Your task to perform on an android device: uninstall "HBO Max: Stream TV & Movies" Image 0: 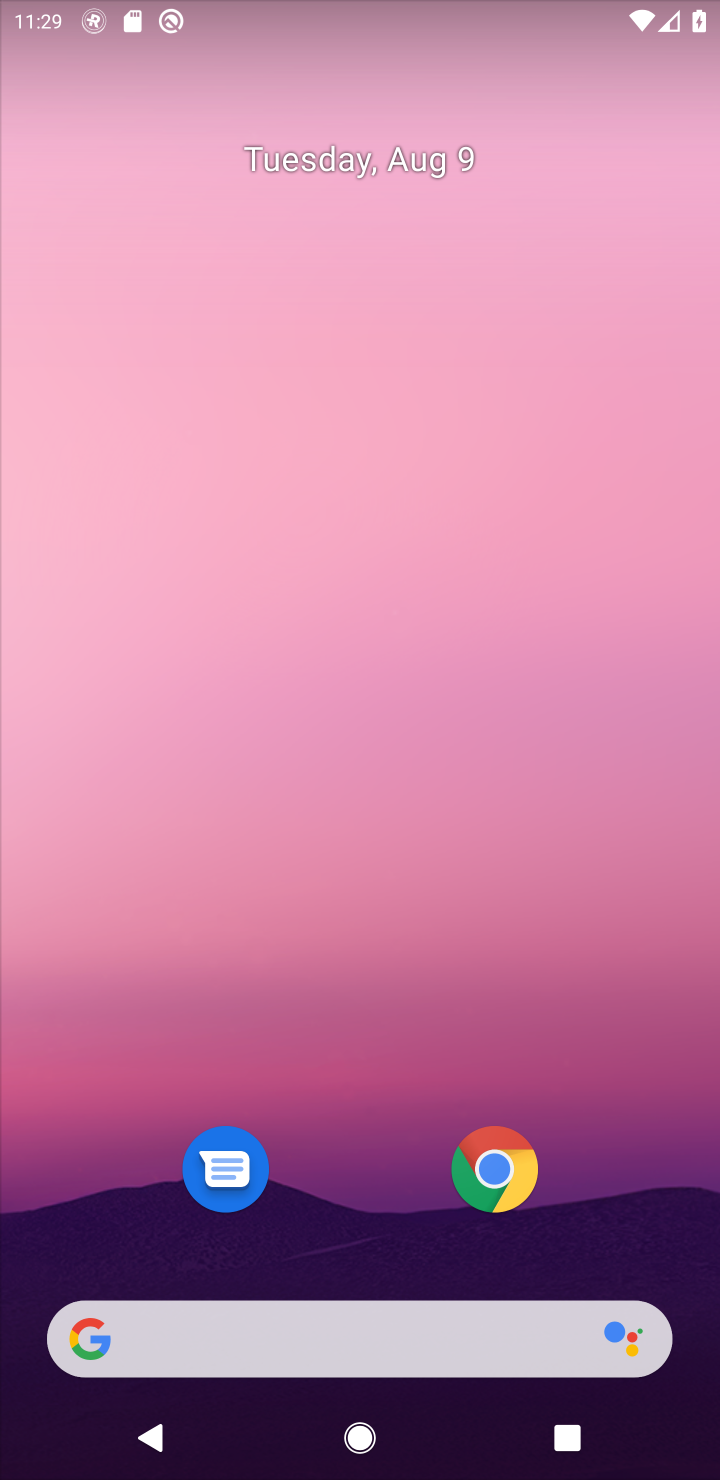
Step 0: press home button
Your task to perform on an android device: uninstall "HBO Max: Stream TV & Movies" Image 1: 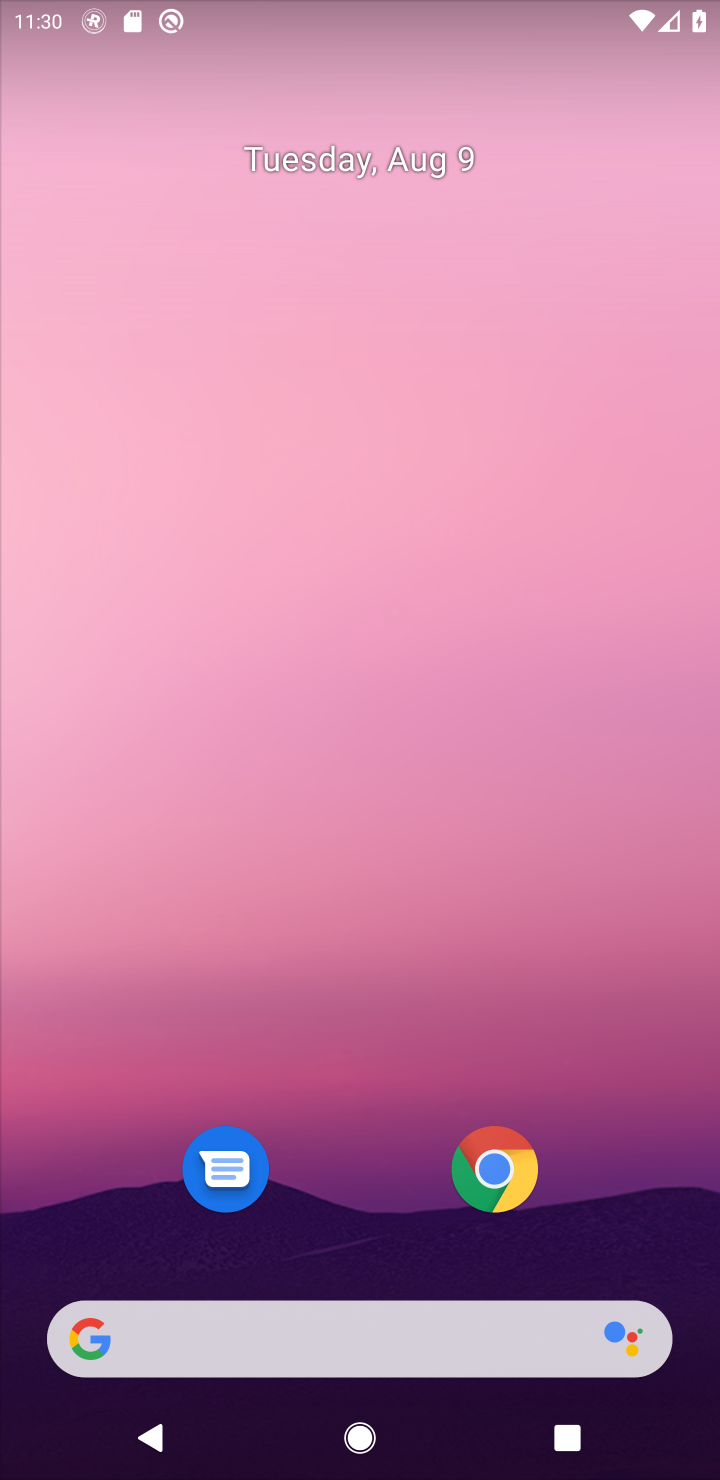
Step 1: drag from (608, 995) to (602, 124)
Your task to perform on an android device: uninstall "HBO Max: Stream TV & Movies" Image 2: 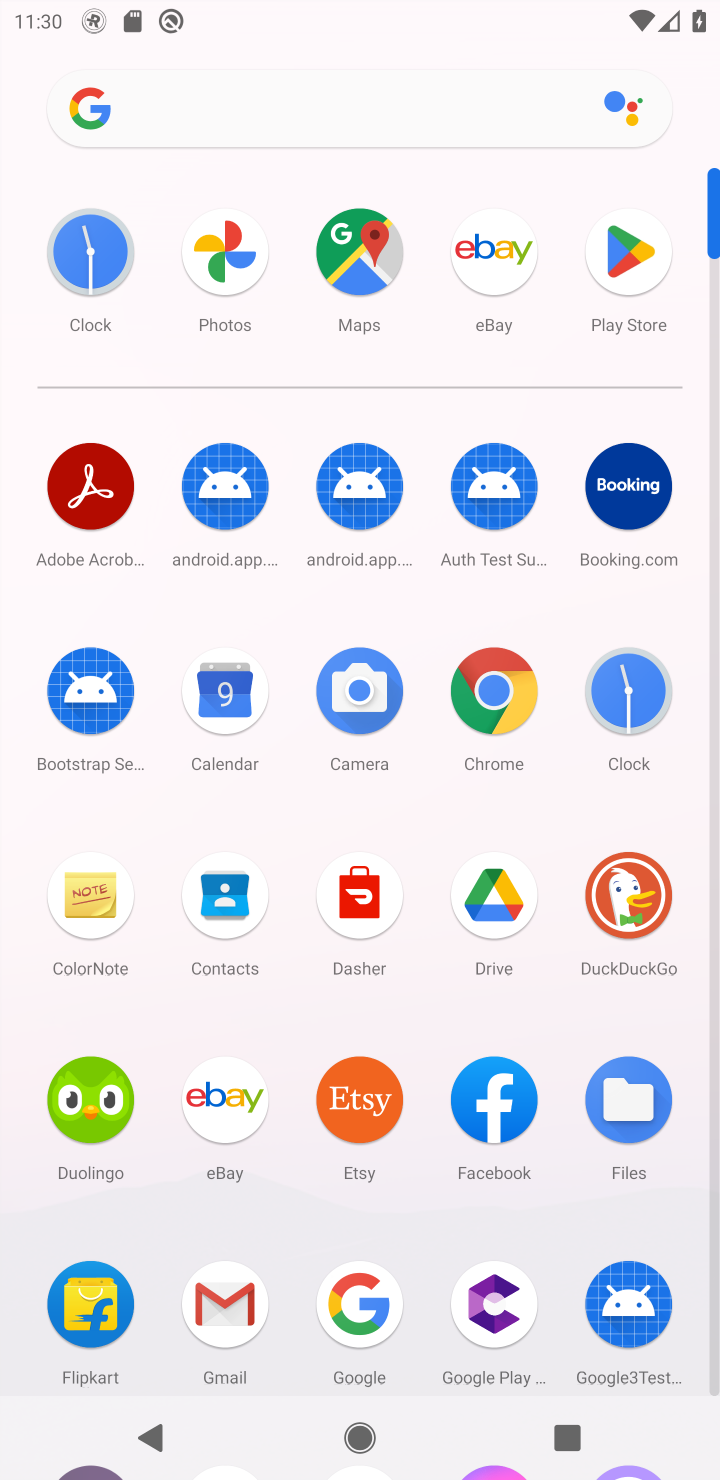
Step 2: click (615, 244)
Your task to perform on an android device: uninstall "HBO Max: Stream TV & Movies" Image 3: 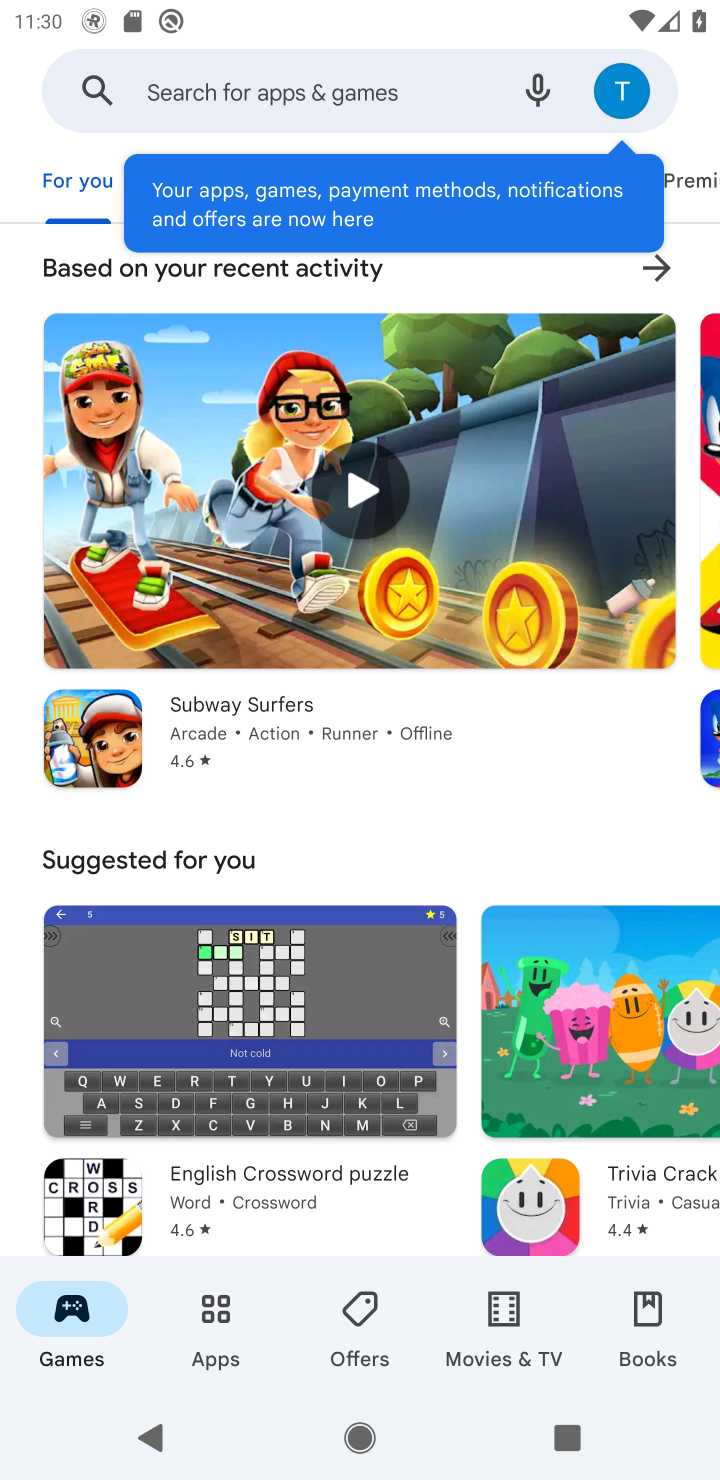
Step 3: click (397, 81)
Your task to perform on an android device: uninstall "HBO Max: Stream TV & Movies" Image 4: 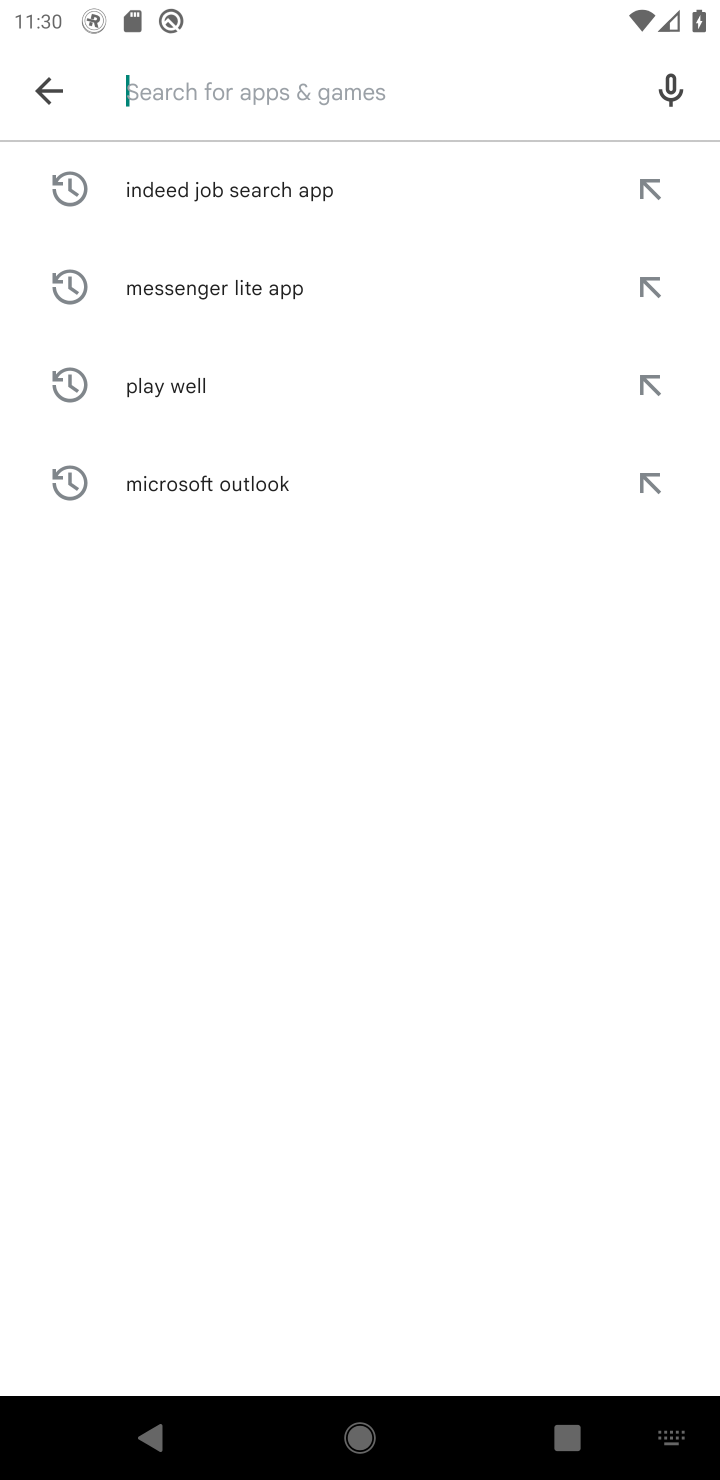
Step 4: type "hbo max stream tv movies"
Your task to perform on an android device: uninstall "HBO Max: Stream TV & Movies" Image 5: 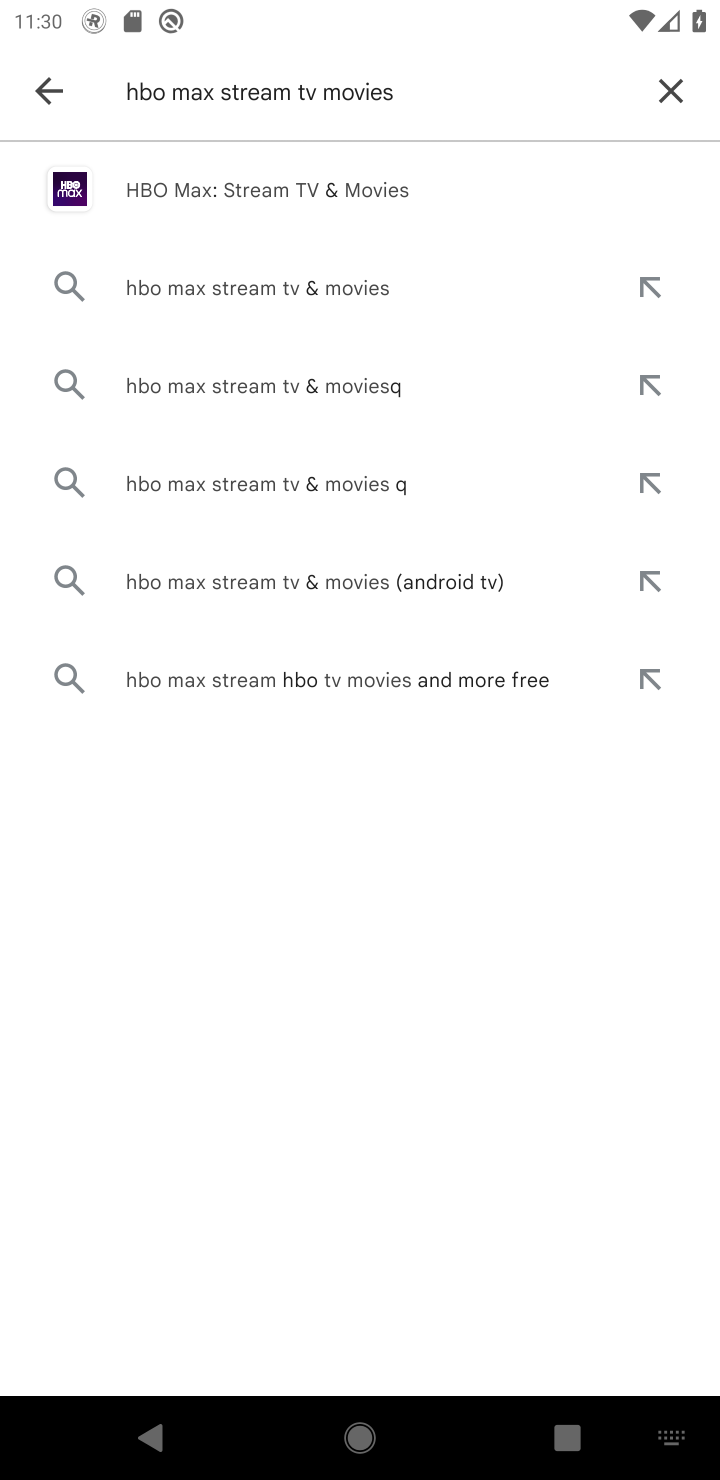
Step 5: click (337, 174)
Your task to perform on an android device: uninstall "HBO Max: Stream TV & Movies" Image 6: 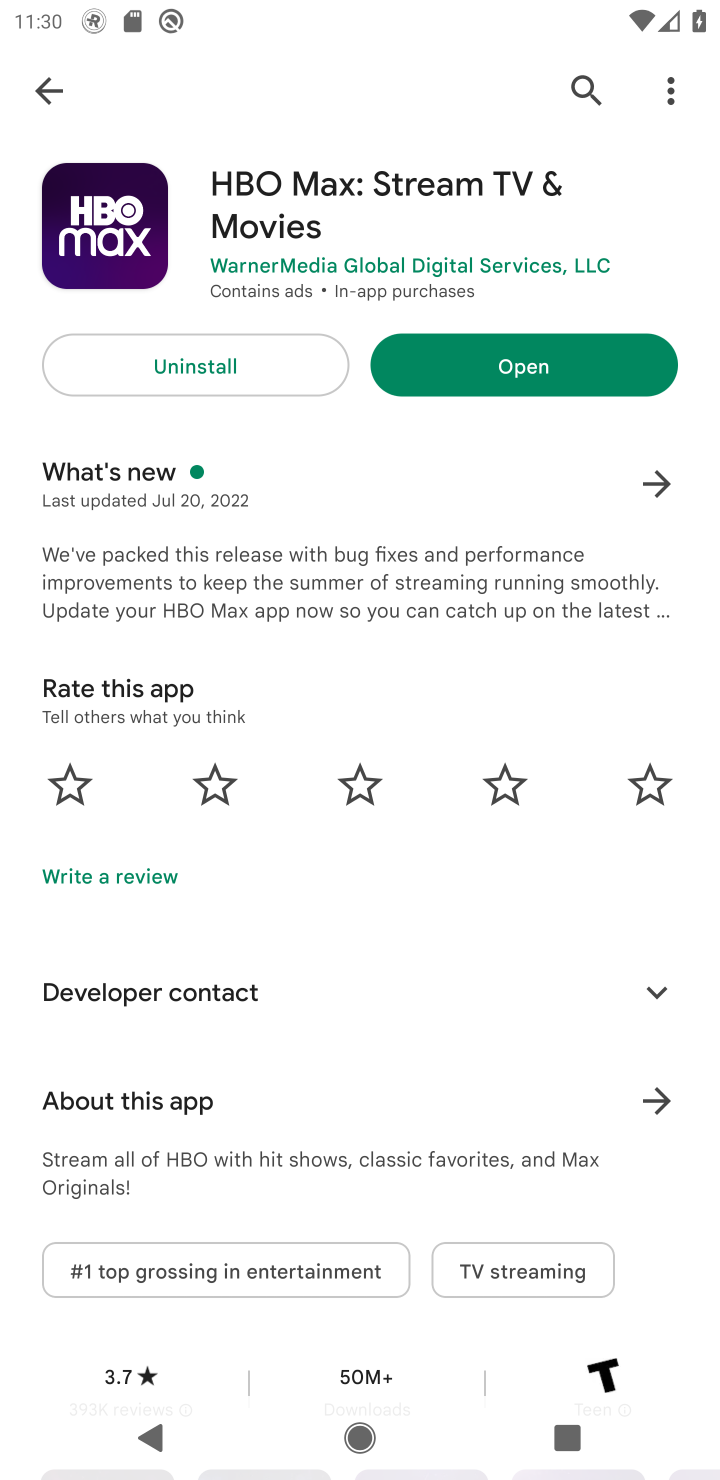
Step 6: click (222, 364)
Your task to perform on an android device: uninstall "HBO Max: Stream TV & Movies" Image 7: 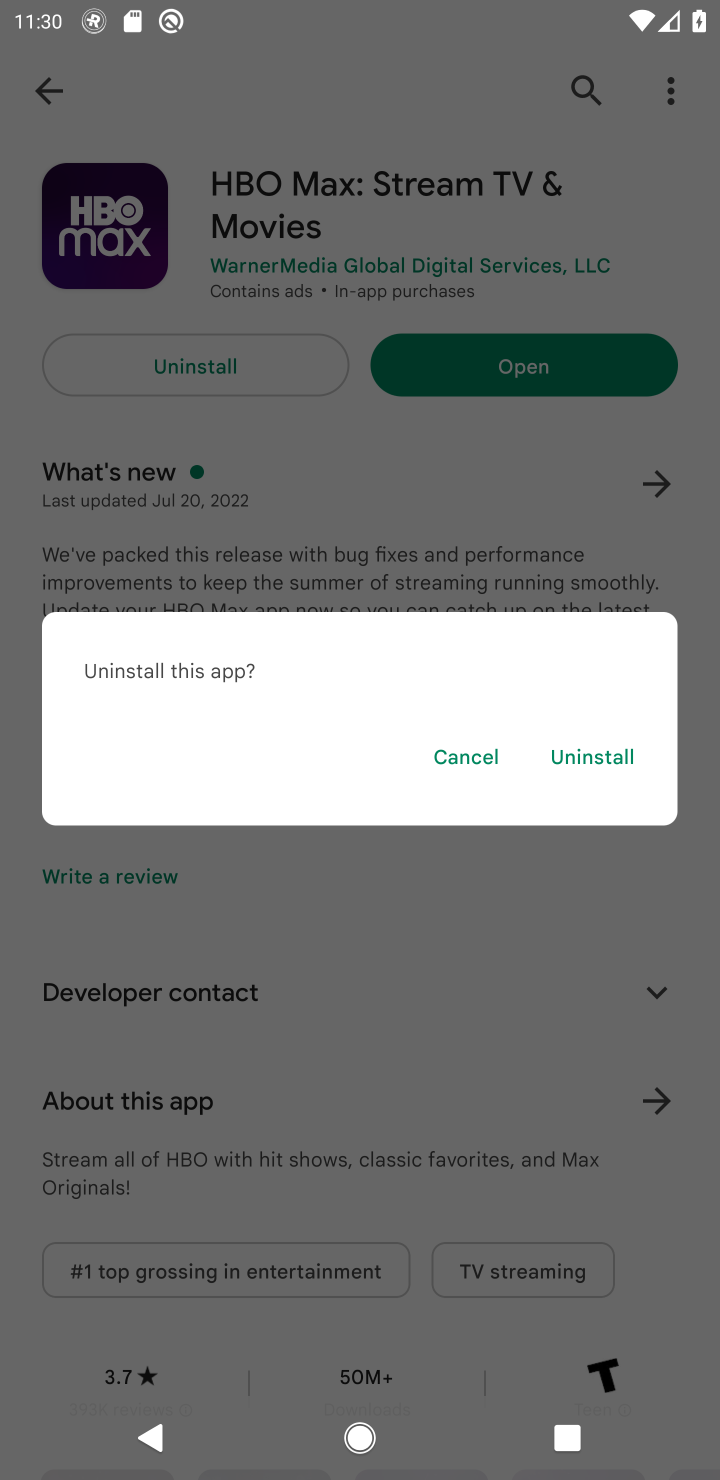
Step 7: click (598, 737)
Your task to perform on an android device: uninstall "HBO Max: Stream TV & Movies" Image 8: 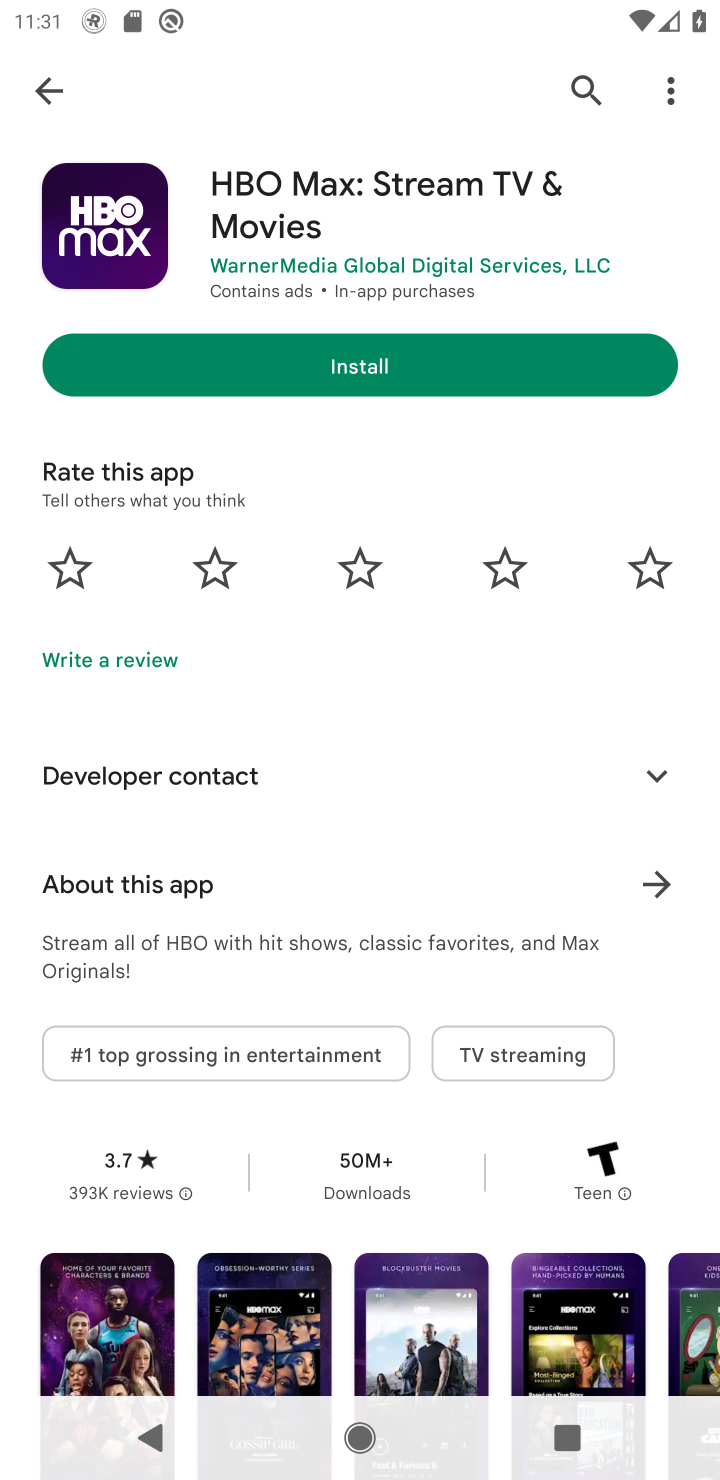
Step 8: task complete